Your task to perform on an android device: turn on showing notifications on the lock screen Image 0: 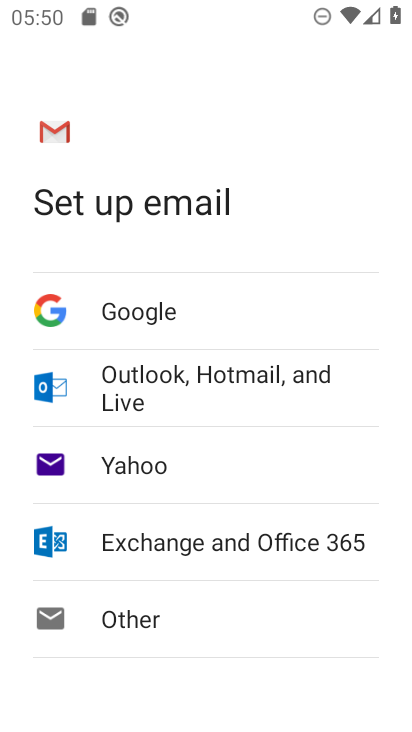
Step 0: press home button
Your task to perform on an android device: turn on showing notifications on the lock screen Image 1: 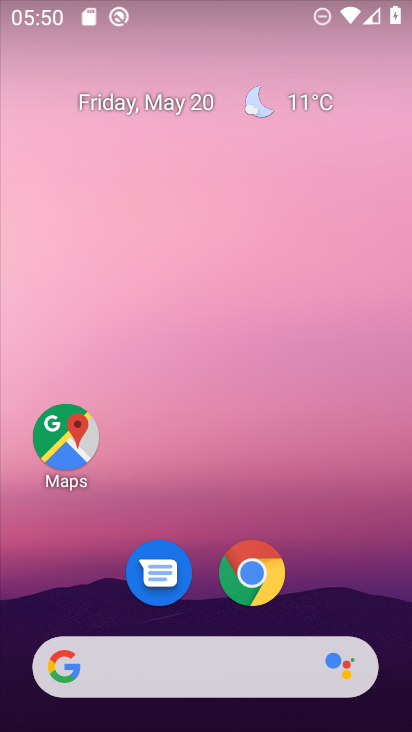
Step 1: drag from (347, 534) to (199, 37)
Your task to perform on an android device: turn on showing notifications on the lock screen Image 2: 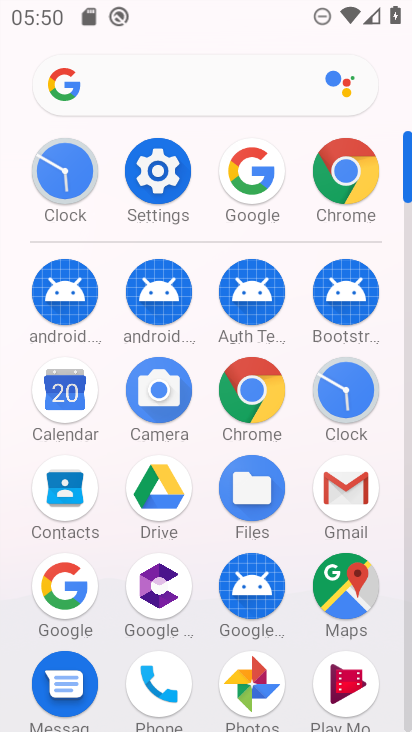
Step 2: click (147, 147)
Your task to perform on an android device: turn on showing notifications on the lock screen Image 3: 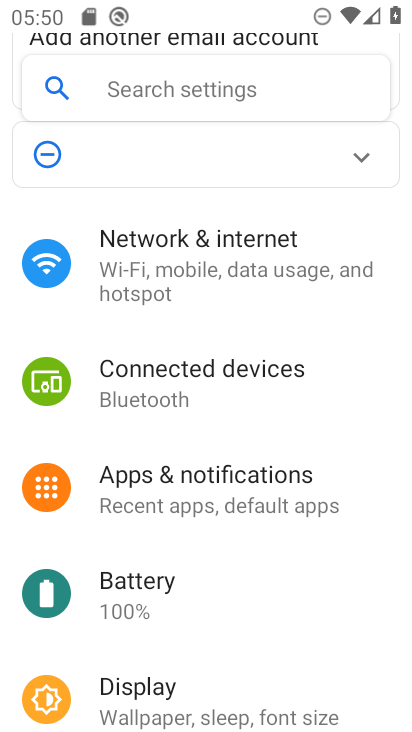
Step 3: click (259, 482)
Your task to perform on an android device: turn on showing notifications on the lock screen Image 4: 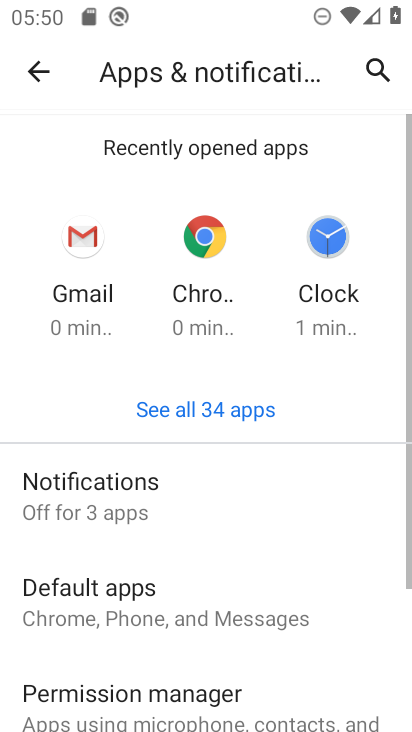
Step 4: click (192, 485)
Your task to perform on an android device: turn on showing notifications on the lock screen Image 5: 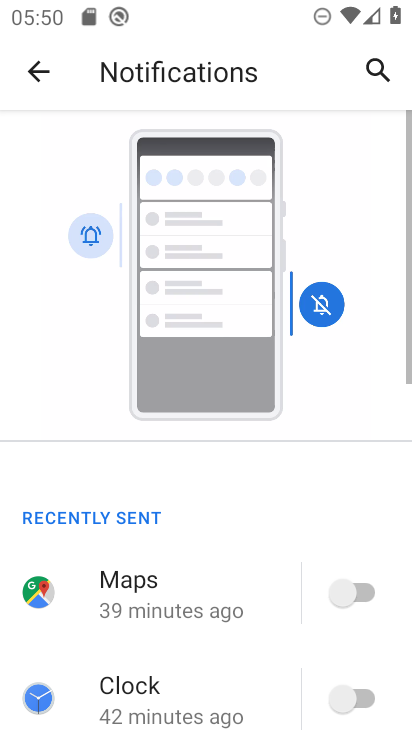
Step 5: drag from (257, 675) to (203, 93)
Your task to perform on an android device: turn on showing notifications on the lock screen Image 6: 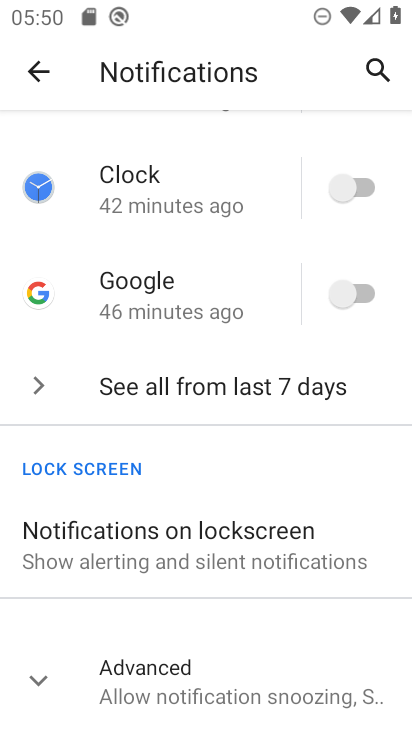
Step 6: click (240, 553)
Your task to perform on an android device: turn on showing notifications on the lock screen Image 7: 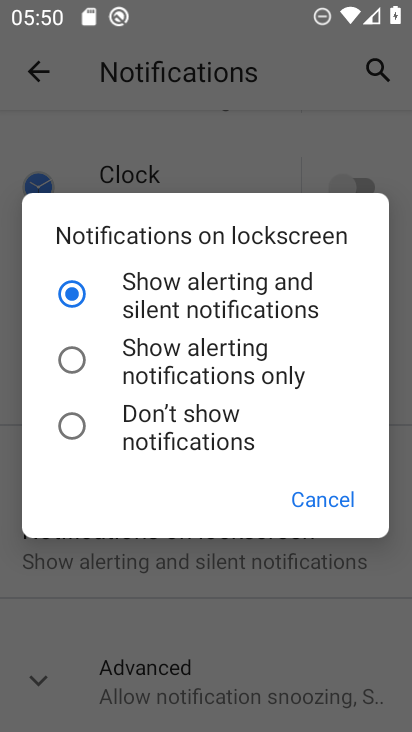
Step 7: task complete